Your task to perform on an android device: delete the emails in spam in the gmail app Image 0: 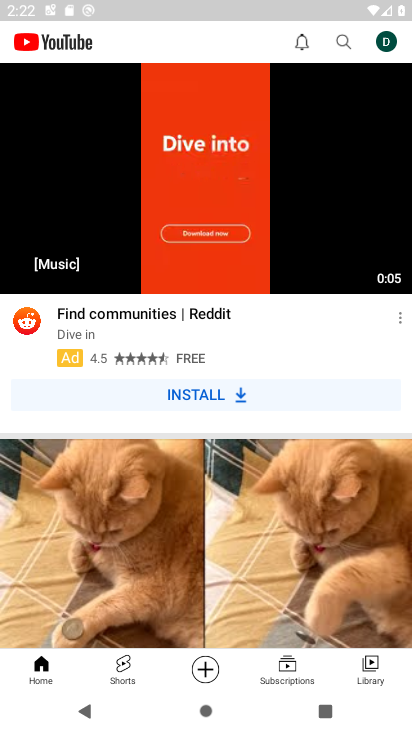
Step 0: press home button
Your task to perform on an android device: delete the emails in spam in the gmail app Image 1: 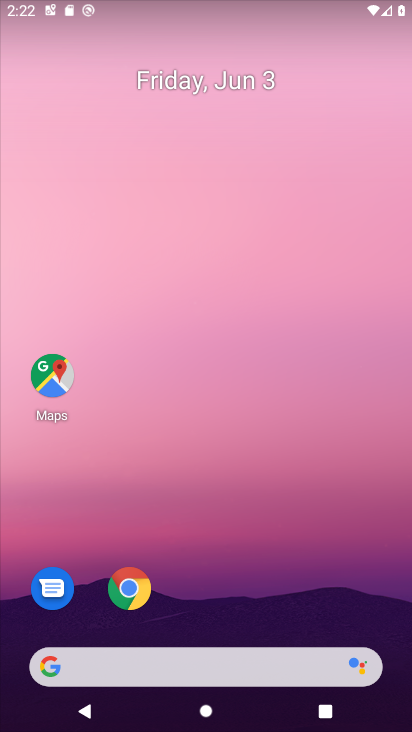
Step 1: drag from (226, 666) to (233, 3)
Your task to perform on an android device: delete the emails in spam in the gmail app Image 2: 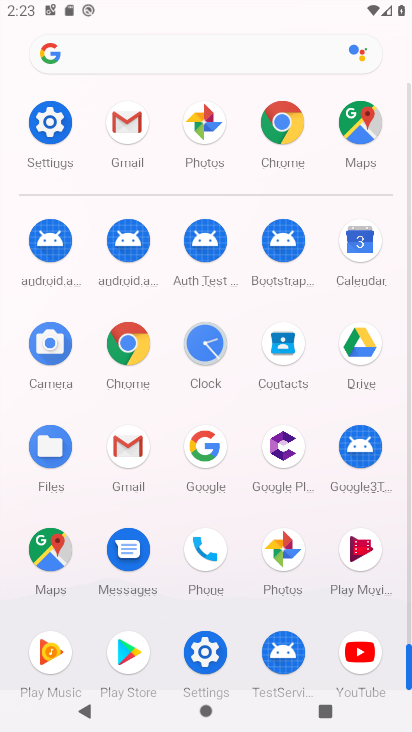
Step 2: click (138, 458)
Your task to perform on an android device: delete the emails in spam in the gmail app Image 3: 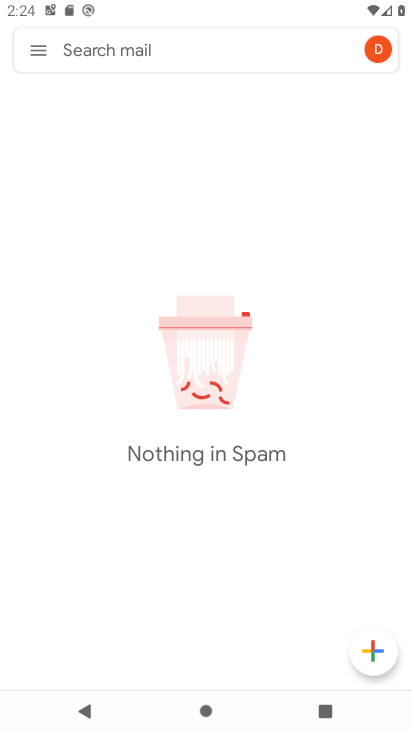
Step 3: click (48, 46)
Your task to perform on an android device: delete the emails in spam in the gmail app Image 4: 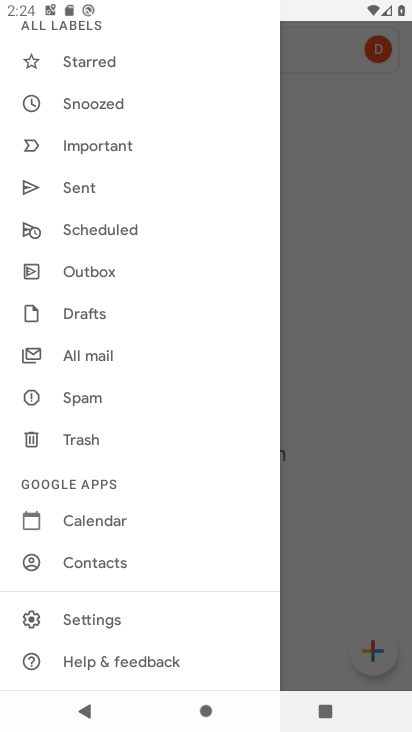
Step 4: click (96, 393)
Your task to perform on an android device: delete the emails in spam in the gmail app Image 5: 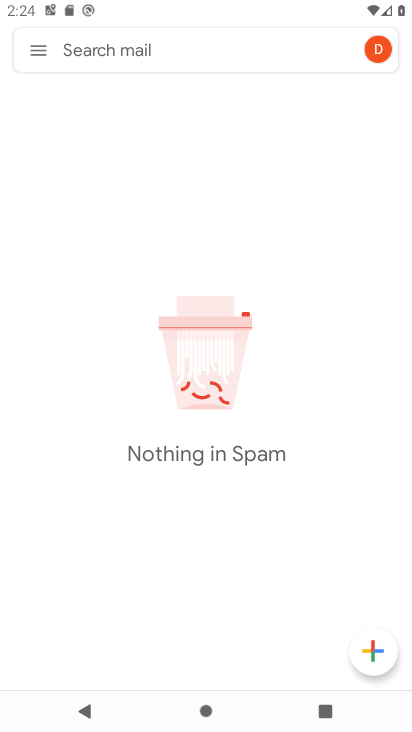
Step 5: task complete